Your task to perform on an android device: Open display settings Image 0: 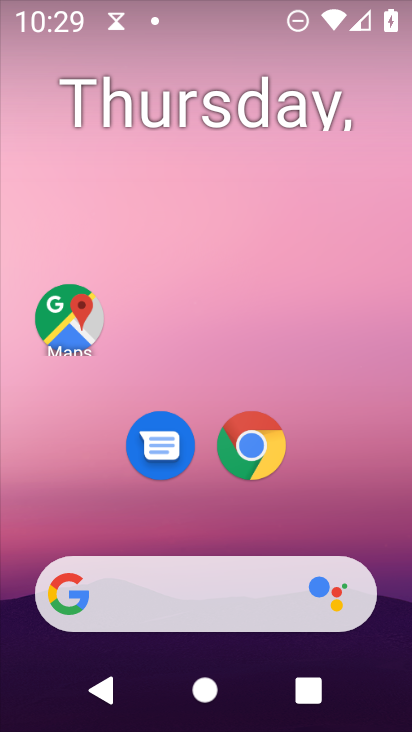
Step 0: drag from (214, 714) to (206, 43)
Your task to perform on an android device: Open display settings Image 1: 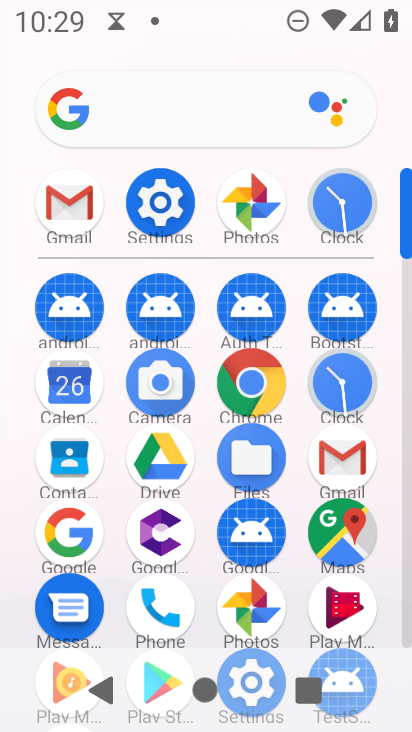
Step 1: click (173, 202)
Your task to perform on an android device: Open display settings Image 2: 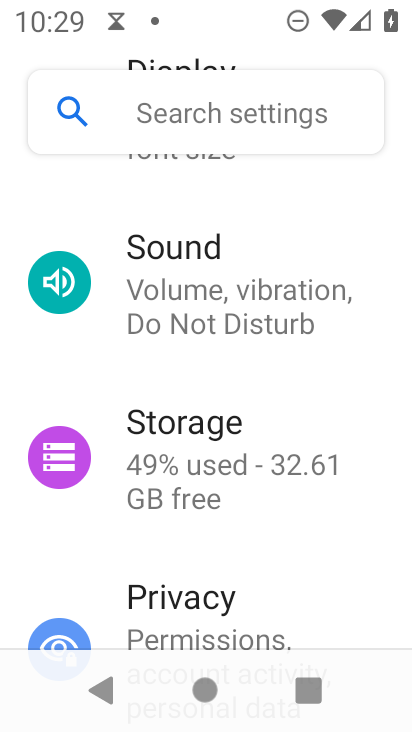
Step 2: drag from (348, 180) to (342, 538)
Your task to perform on an android device: Open display settings Image 3: 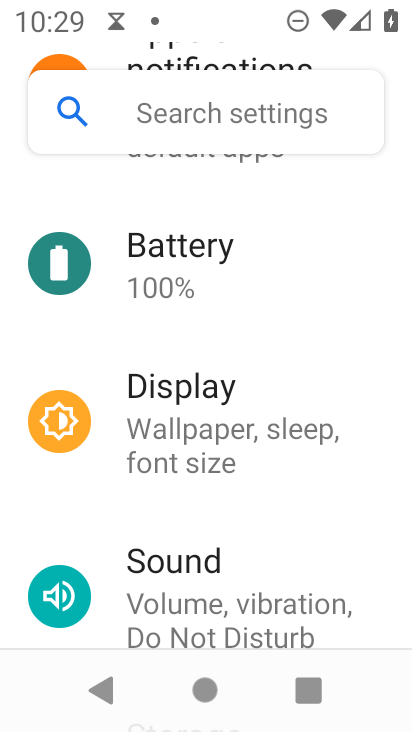
Step 3: click (177, 408)
Your task to perform on an android device: Open display settings Image 4: 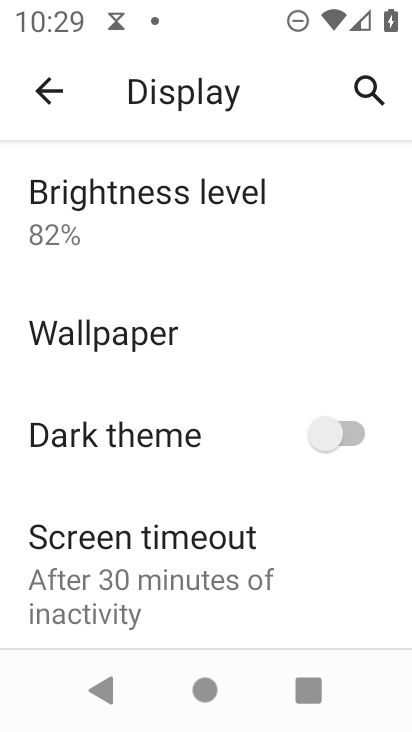
Step 4: task complete